Your task to perform on an android device: open the mobile data screen to see how much data has been used Image 0: 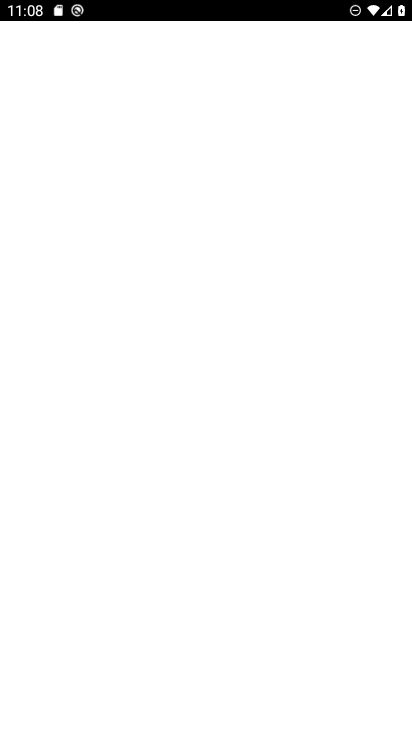
Step 0: click (152, 683)
Your task to perform on an android device: open the mobile data screen to see how much data has been used Image 1: 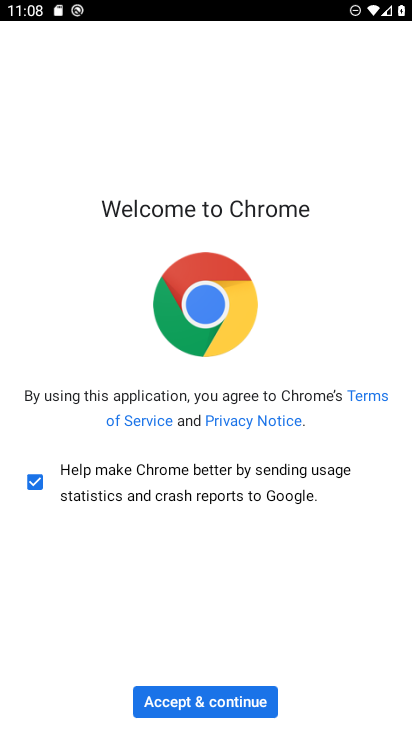
Step 1: press home button
Your task to perform on an android device: open the mobile data screen to see how much data has been used Image 2: 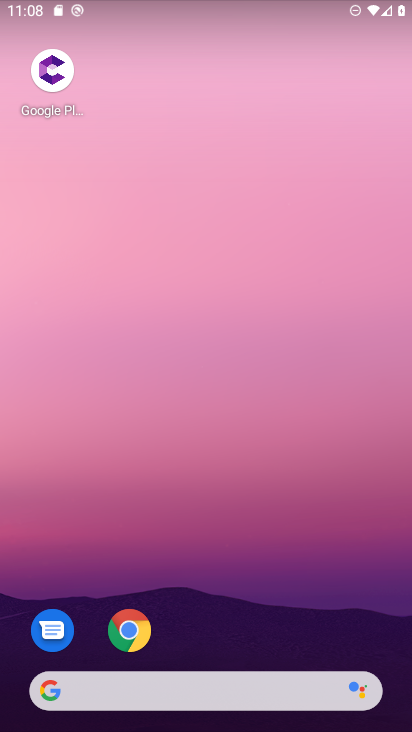
Step 2: drag from (177, 612) to (186, 221)
Your task to perform on an android device: open the mobile data screen to see how much data has been used Image 3: 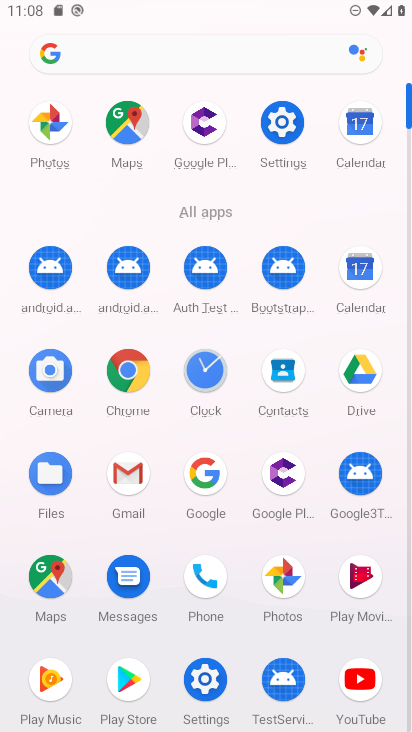
Step 3: click (280, 126)
Your task to perform on an android device: open the mobile data screen to see how much data has been used Image 4: 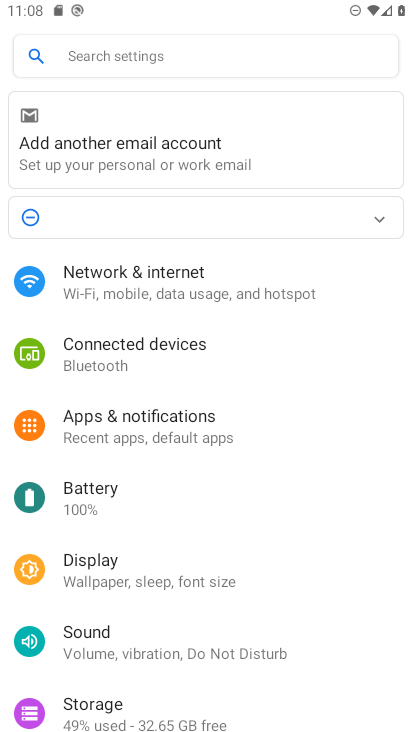
Step 4: click (139, 285)
Your task to perform on an android device: open the mobile data screen to see how much data has been used Image 5: 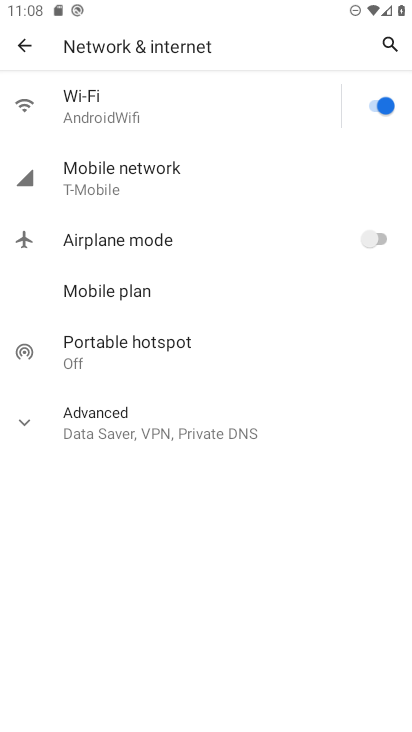
Step 5: click (152, 185)
Your task to perform on an android device: open the mobile data screen to see how much data has been used Image 6: 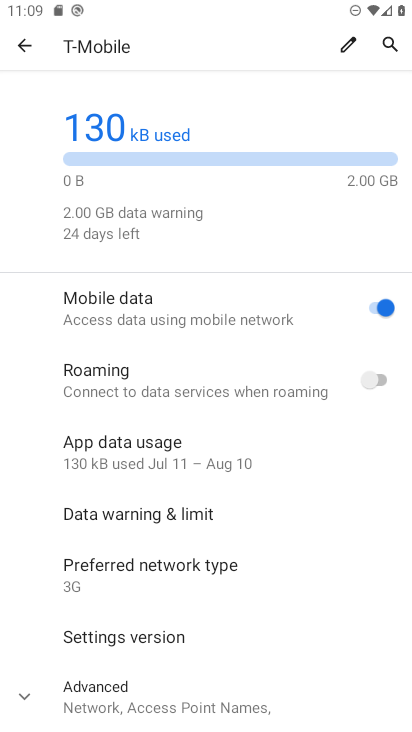
Step 6: task complete